Your task to perform on an android device: When is my next appointment? Image 0: 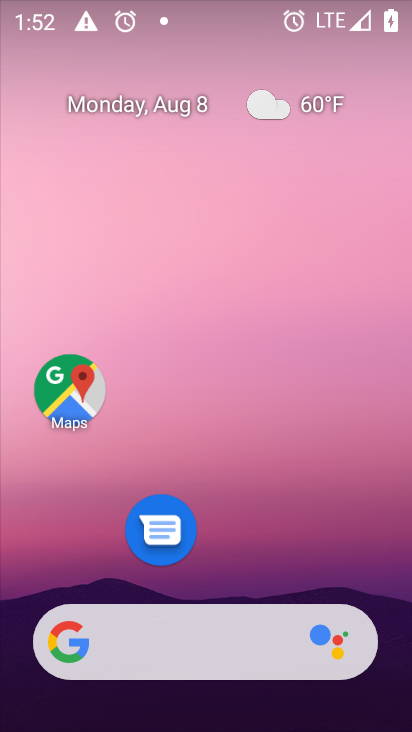
Step 0: drag from (221, 584) to (220, 13)
Your task to perform on an android device: When is my next appointment? Image 1: 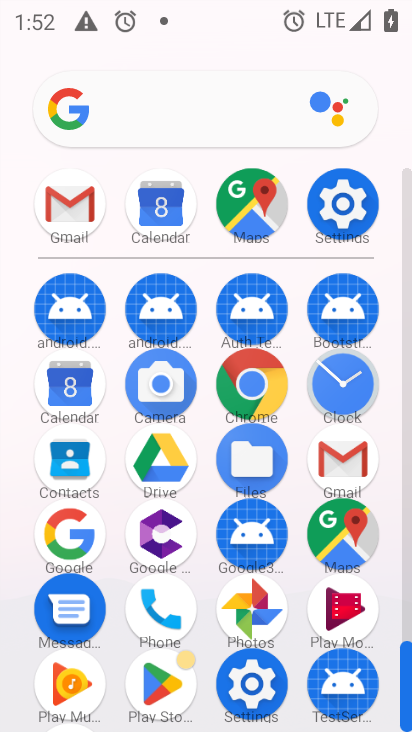
Step 1: click (69, 385)
Your task to perform on an android device: When is my next appointment? Image 2: 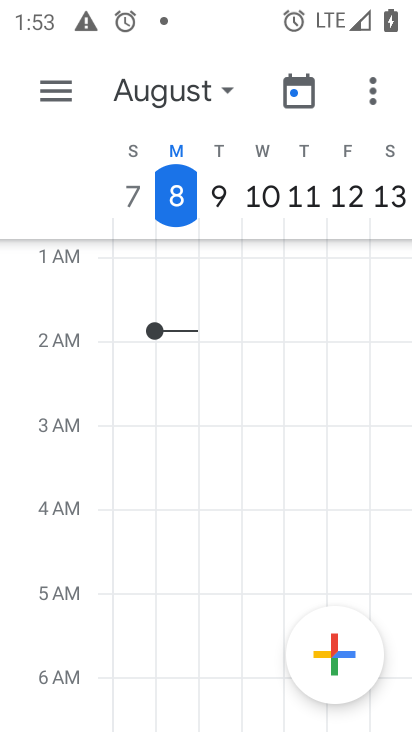
Step 2: click (222, 194)
Your task to perform on an android device: When is my next appointment? Image 3: 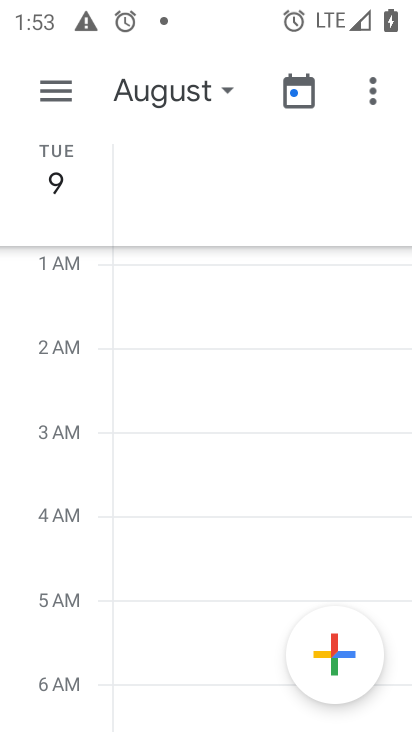
Step 3: task complete